Your task to perform on an android device: turn off notifications in google photos Image 0: 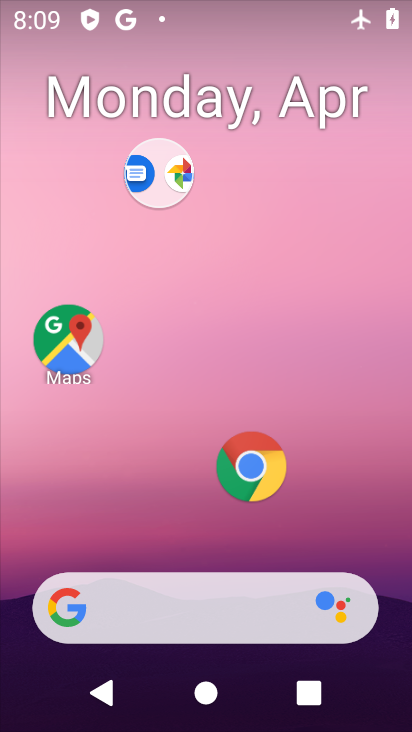
Step 0: click (263, 158)
Your task to perform on an android device: turn off notifications in google photos Image 1: 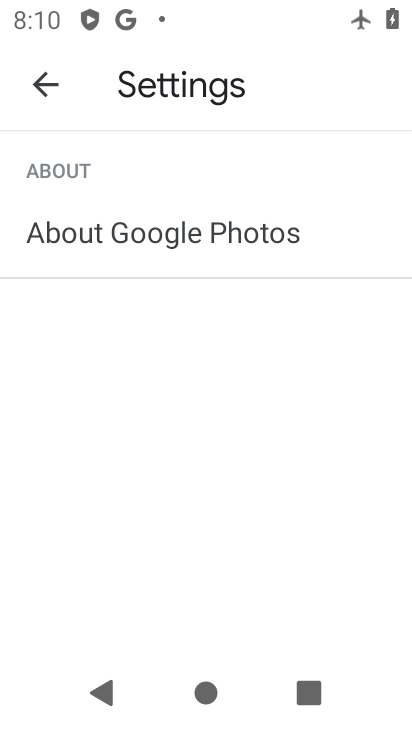
Step 1: press home button
Your task to perform on an android device: turn off notifications in google photos Image 2: 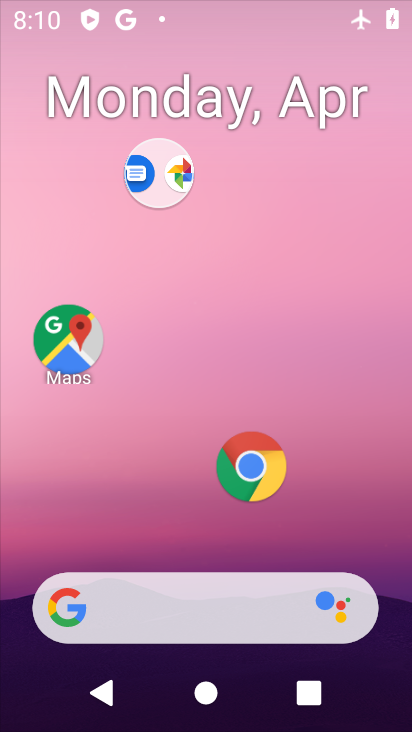
Step 2: drag from (188, 557) to (229, 156)
Your task to perform on an android device: turn off notifications in google photos Image 3: 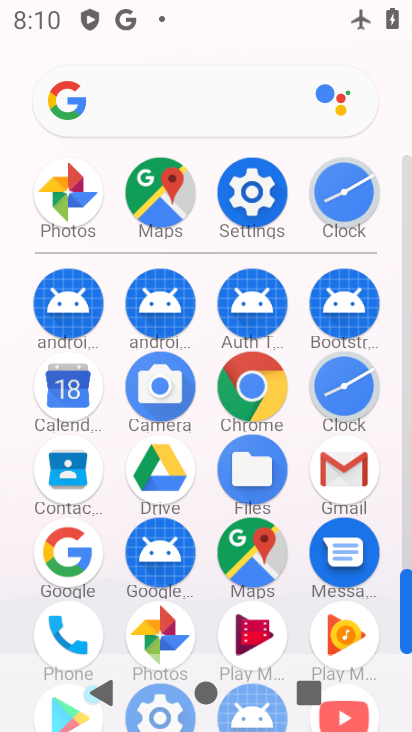
Step 3: click (163, 621)
Your task to perform on an android device: turn off notifications in google photos Image 4: 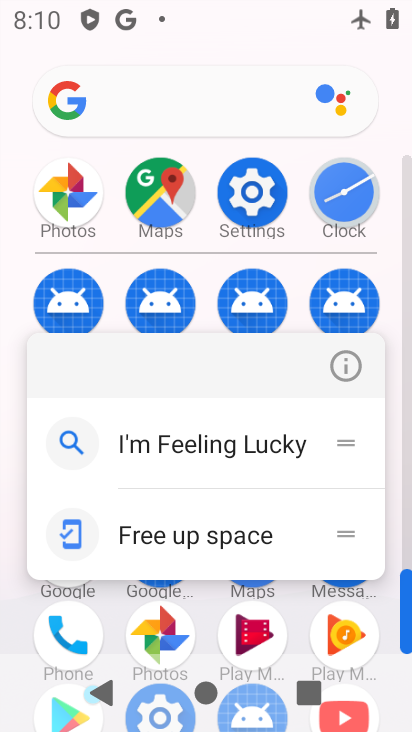
Step 4: click (345, 359)
Your task to perform on an android device: turn off notifications in google photos Image 5: 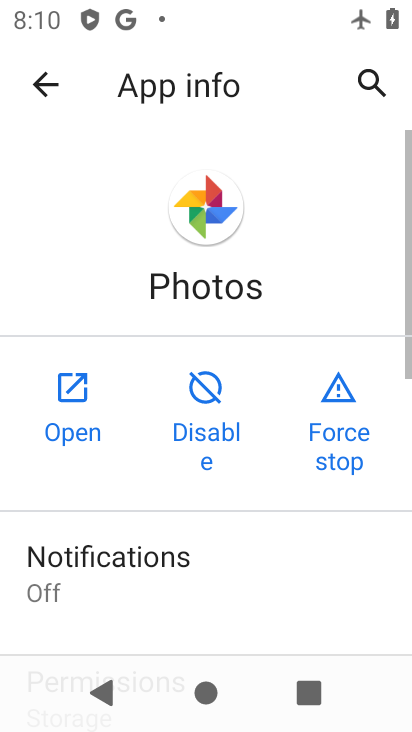
Step 5: click (48, 419)
Your task to perform on an android device: turn off notifications in google photos Image 6: 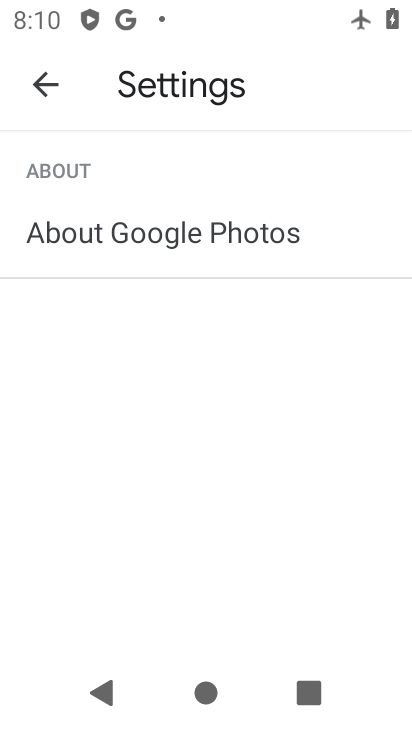
Step 6: click (41, 74)
Your task to perform on an android device: turn off notifications in google photos Image 7: 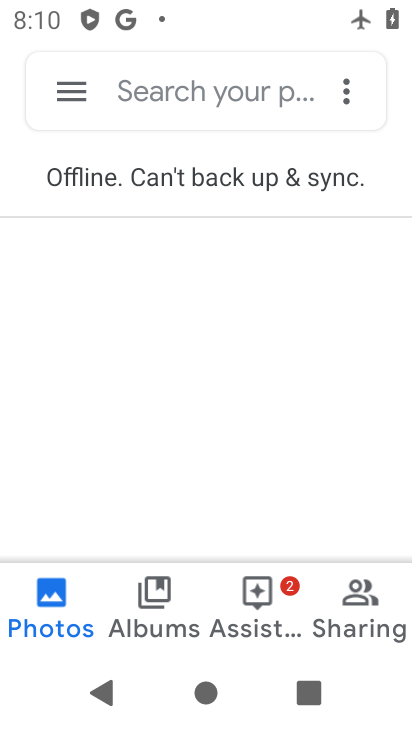
Step 7: click (50, 84)
Your task to perform on an android device: turn off notifications in google photos Image 8: 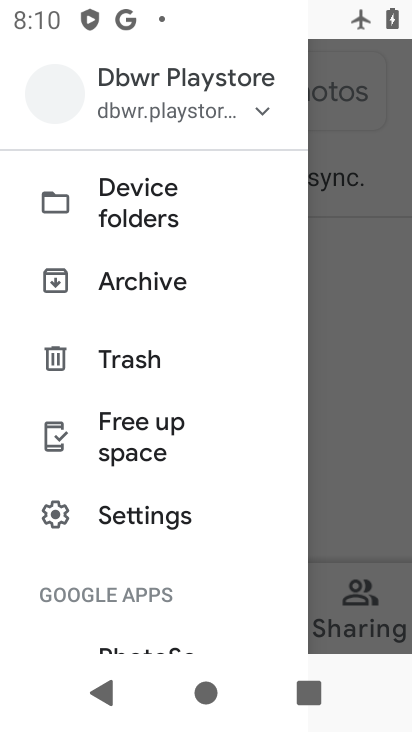
Step 8: click (147, 503)
Your task to perform on an android device: turn off notifications in google photos Image 9: 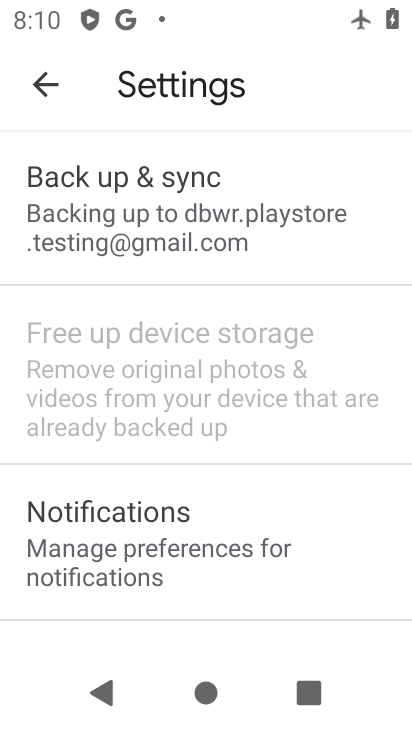
Step 9: click (154, 548)
Your task to perform on an android device: turn off notifications in google photos Image 10: 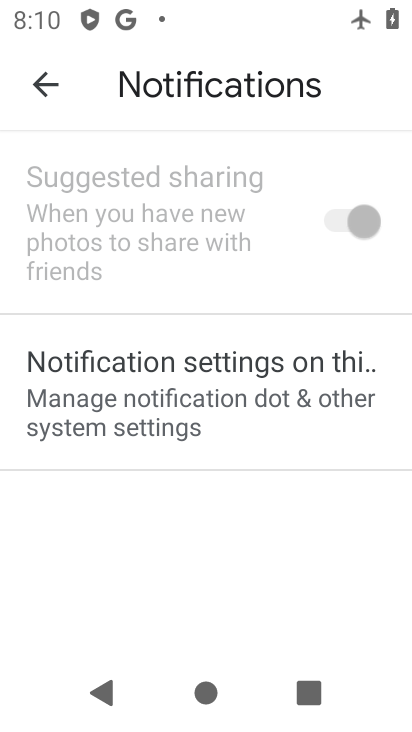
Step 10: click (253, 394)
Your task to perform on an android device: turn off notifications in google photos Image 11: 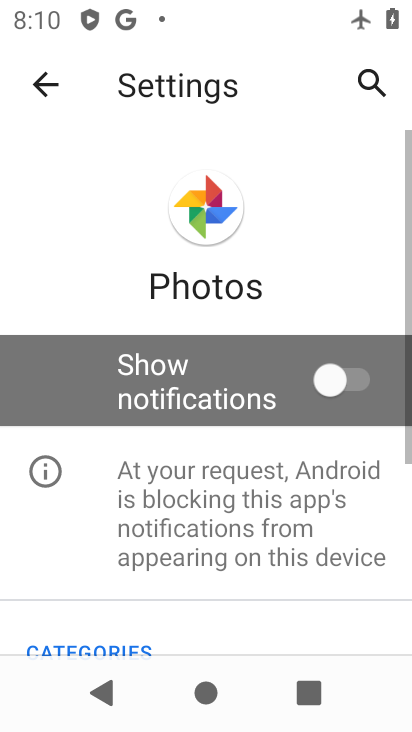
Step 11: task complete